Your task to perform on an android device: Open Youtube and go to "Your channel" Image 0: 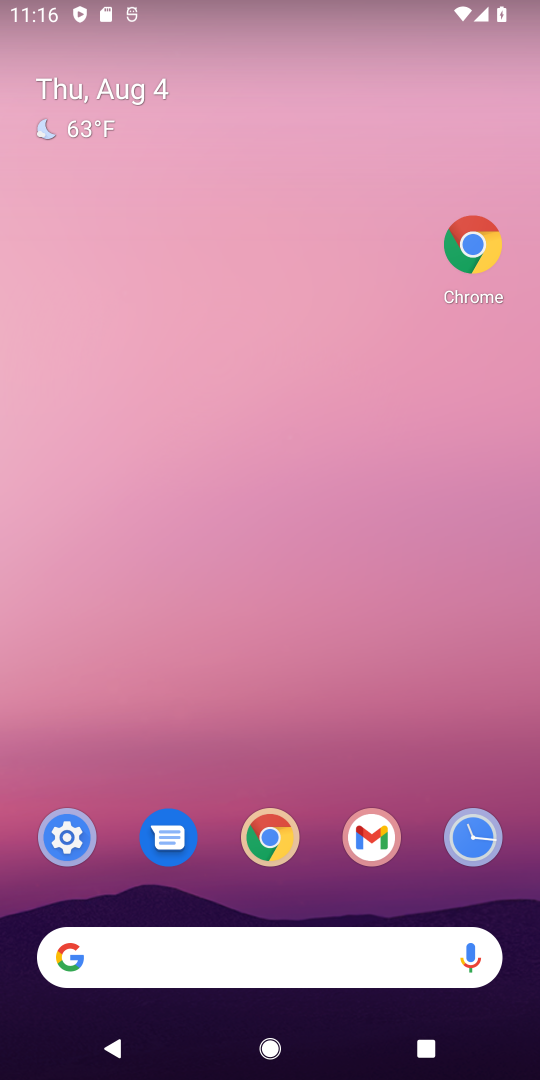
Step 0: press home button
Your task to perform on an android device: Open Youtube and go to "Your channel" Image 1: 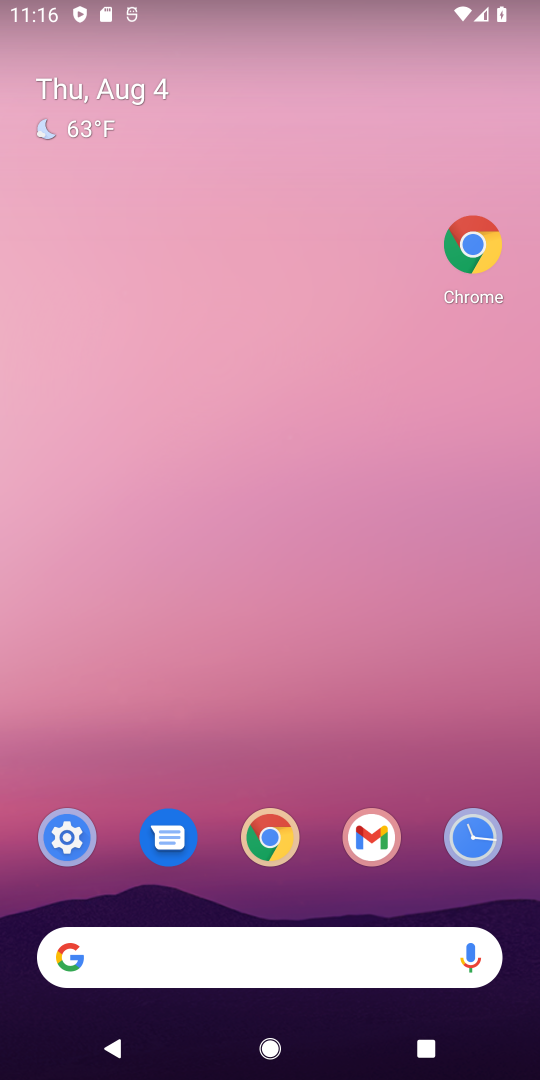
Step 1: drag from (319, 891) to (369, 66)
Your task to perform on an android device: Open Youtube and go to "Your channel" Image 2: 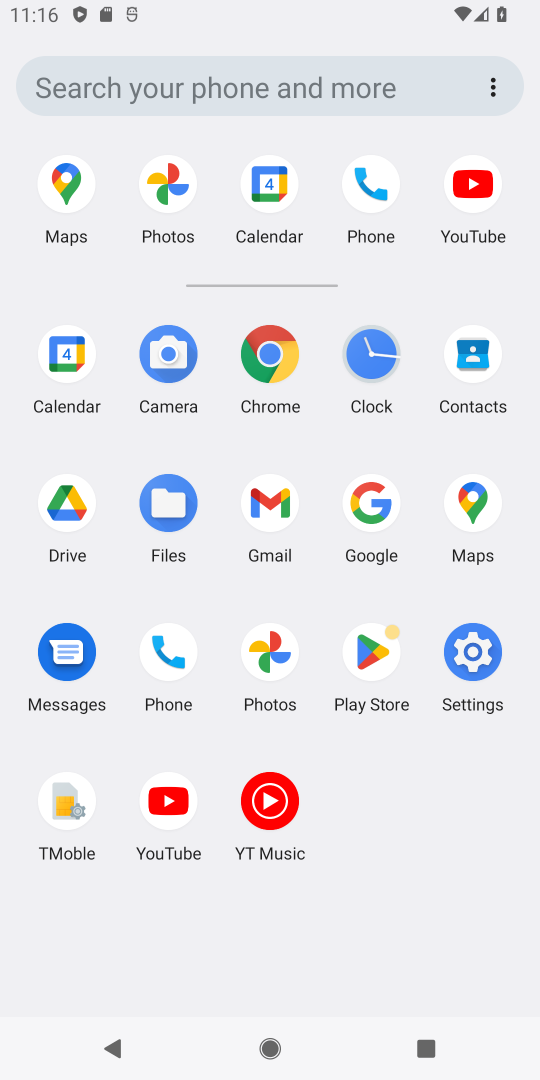
Step 2: click (472, 176)
Your task to perform on an android device: Open Youtube and go to "Your channel" Image 3: 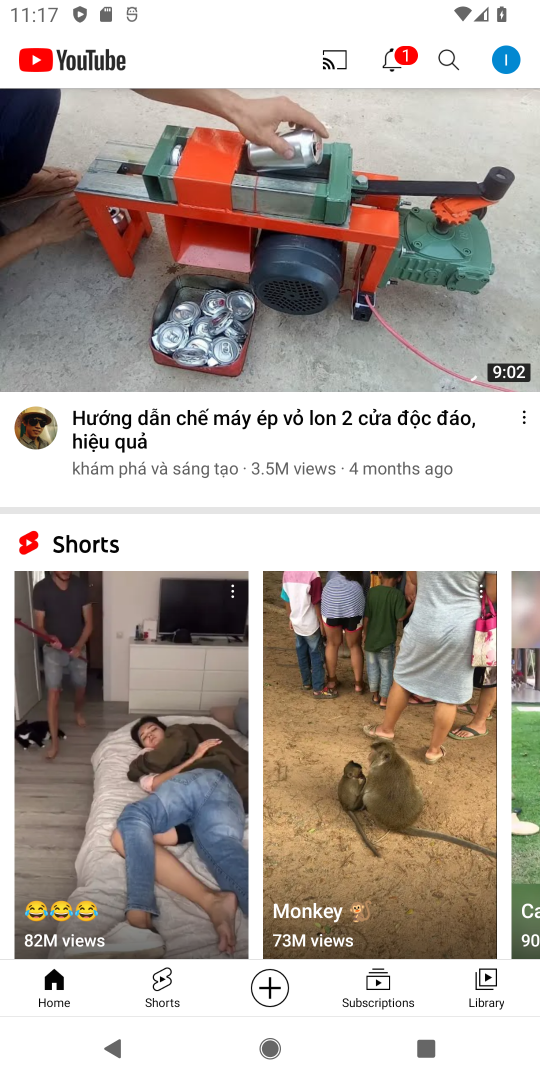
Step 3: click (503, 60)
Your task to perform on an android device: Open Youtube and go to "Your channel" Image 4: 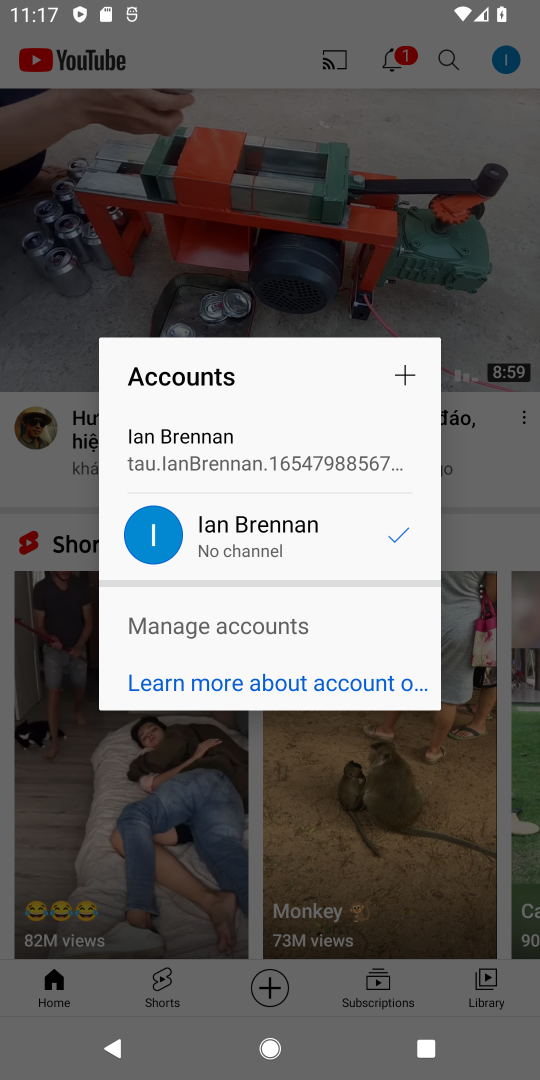
Step 4: click (286, 812)
Your task to perform on an android device: Open Youtube and go to "Your channel" Image 5: 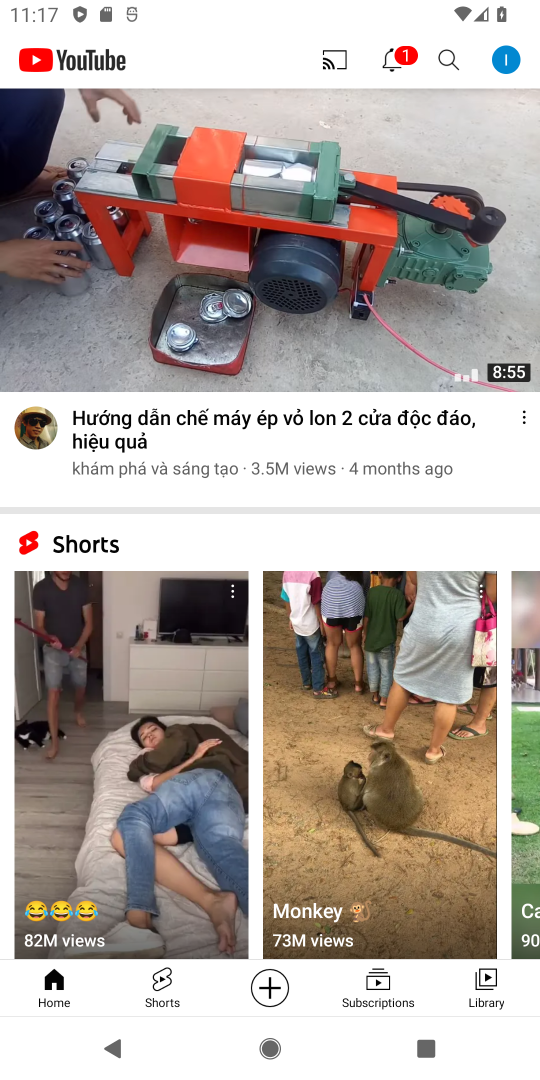
Step 5: click (483, 967)
Your task to perform on an android device: Open Youtube and go to "Your channel" Image 6: 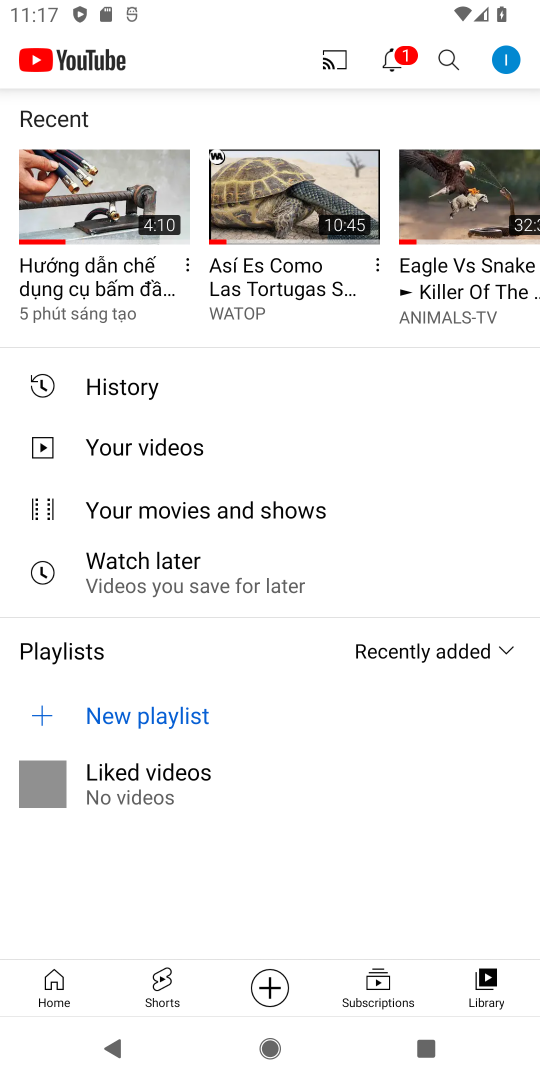
Step 6: click (498, 51)
Your task to perform on an android device: Open Youtube and go to "Your channel" Image 7: 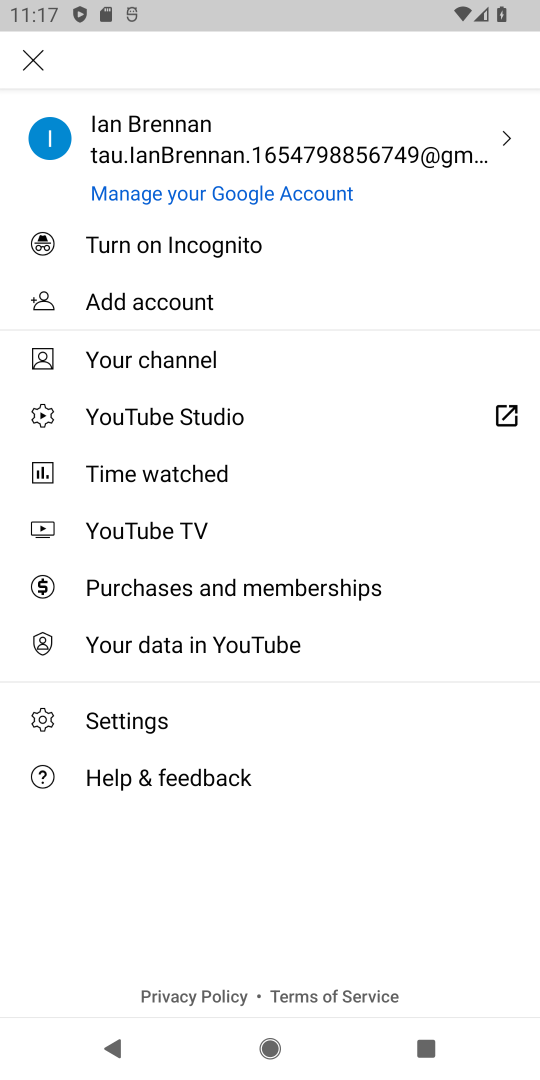
Step 7: click (245, 351)
Your task to perform on an android device: Open Youtube and go to "Your channel" Image 8: 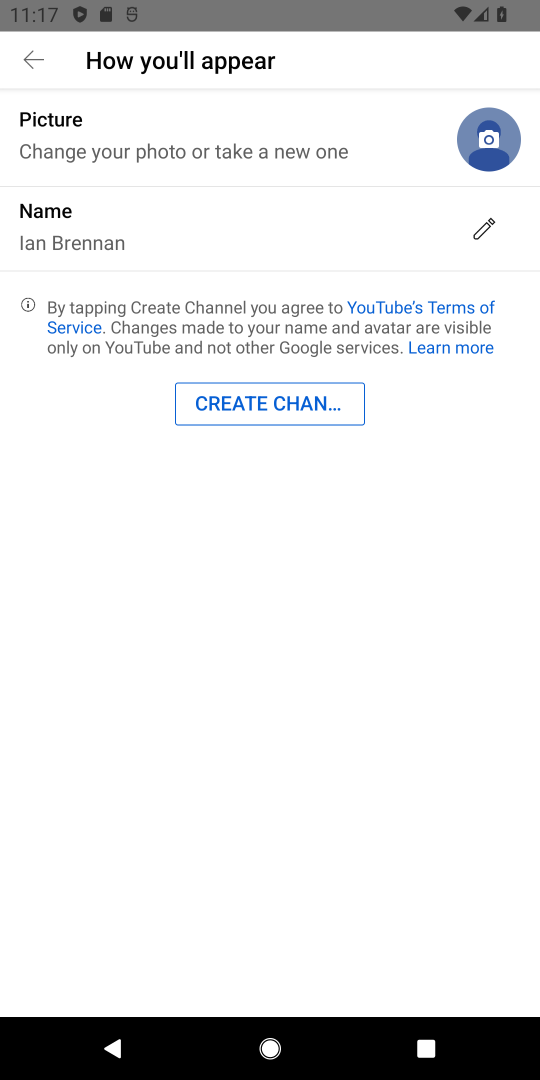
Step 8: task complete